Your task to perform on an android device: Open settings Image 0: 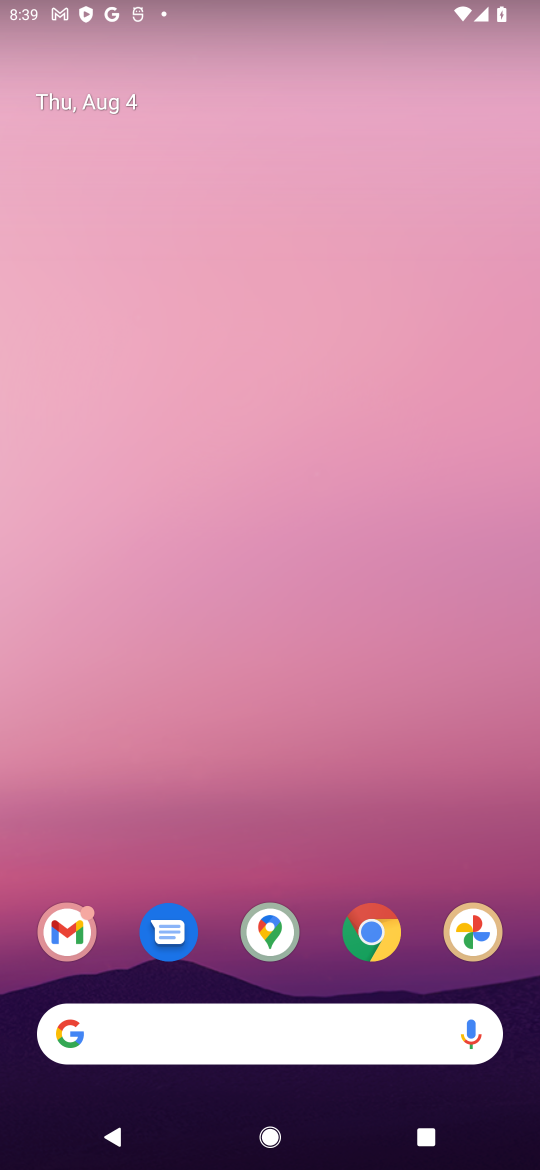
Step 0: drag from (230, 626) to (237, 160)
Your task to perform on an android device: Open settings Image 1: 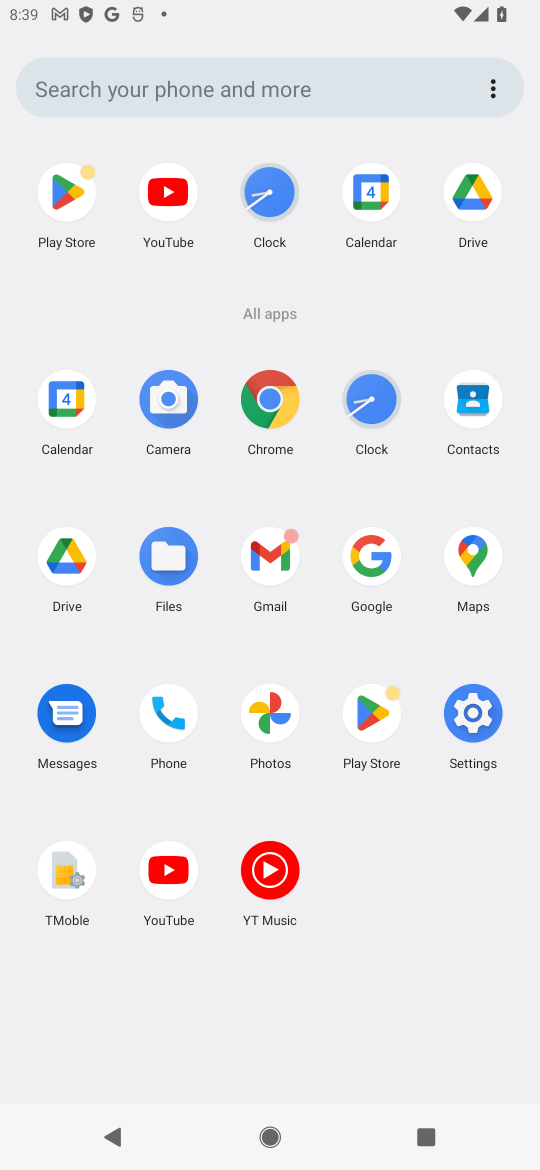
Step 1: click (469, 711)
Your task to perform on an android device: Open settings Image 2: 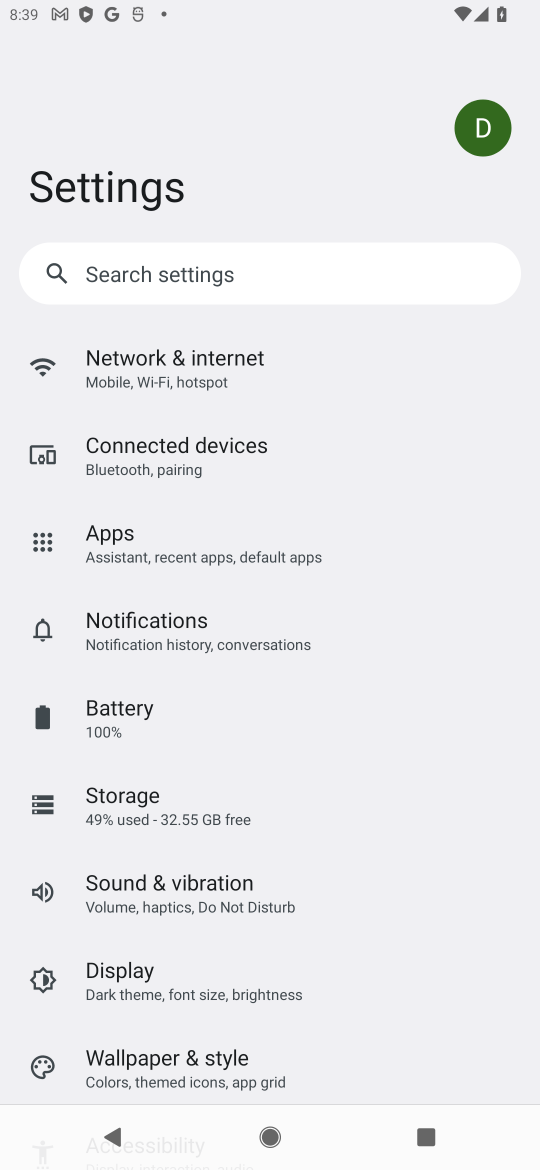
Step 2: task complete